Your task to perform on an android device: Add bose soundlink to the cart on ebay Image 0: 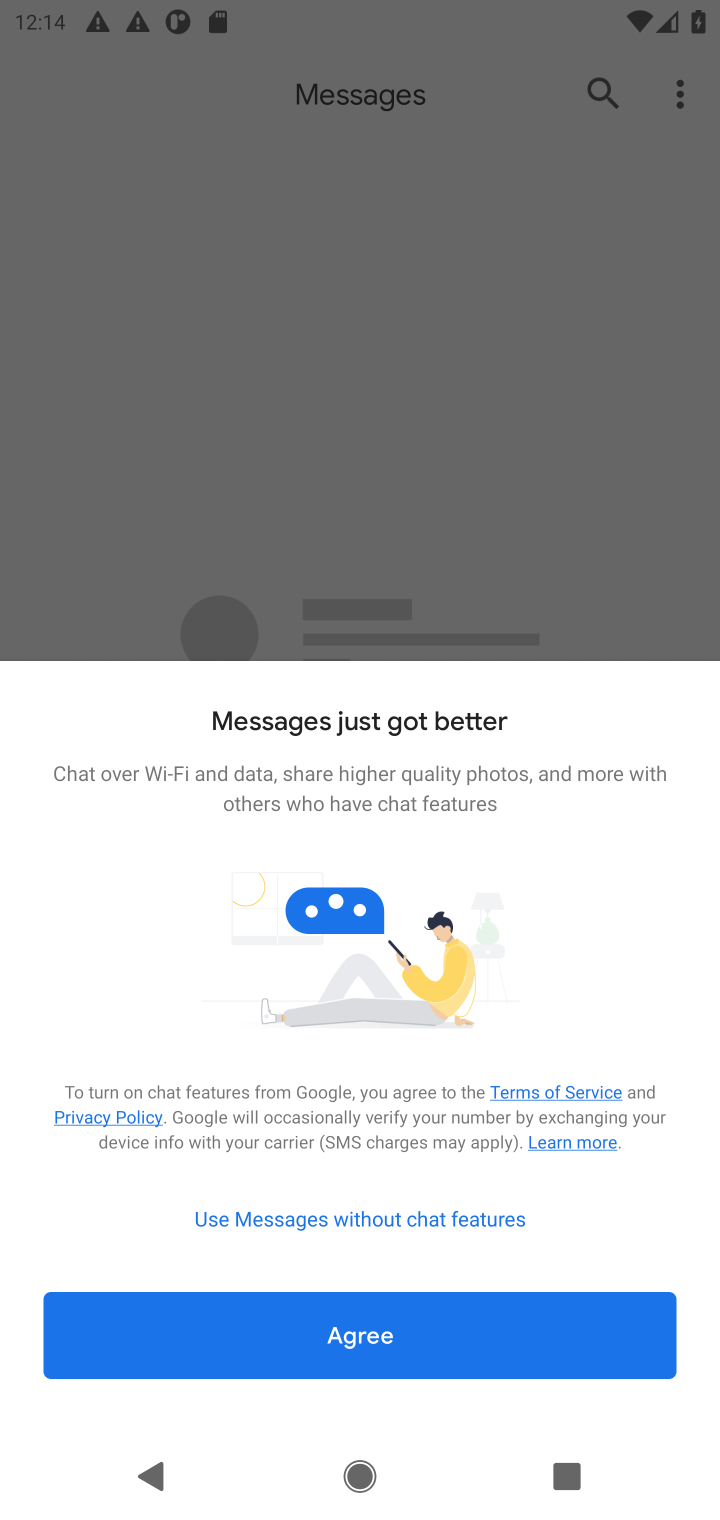
Step 0: press home button
Your task to perform on an android device: Add bose soundlink to the cart on ebay Image 1: 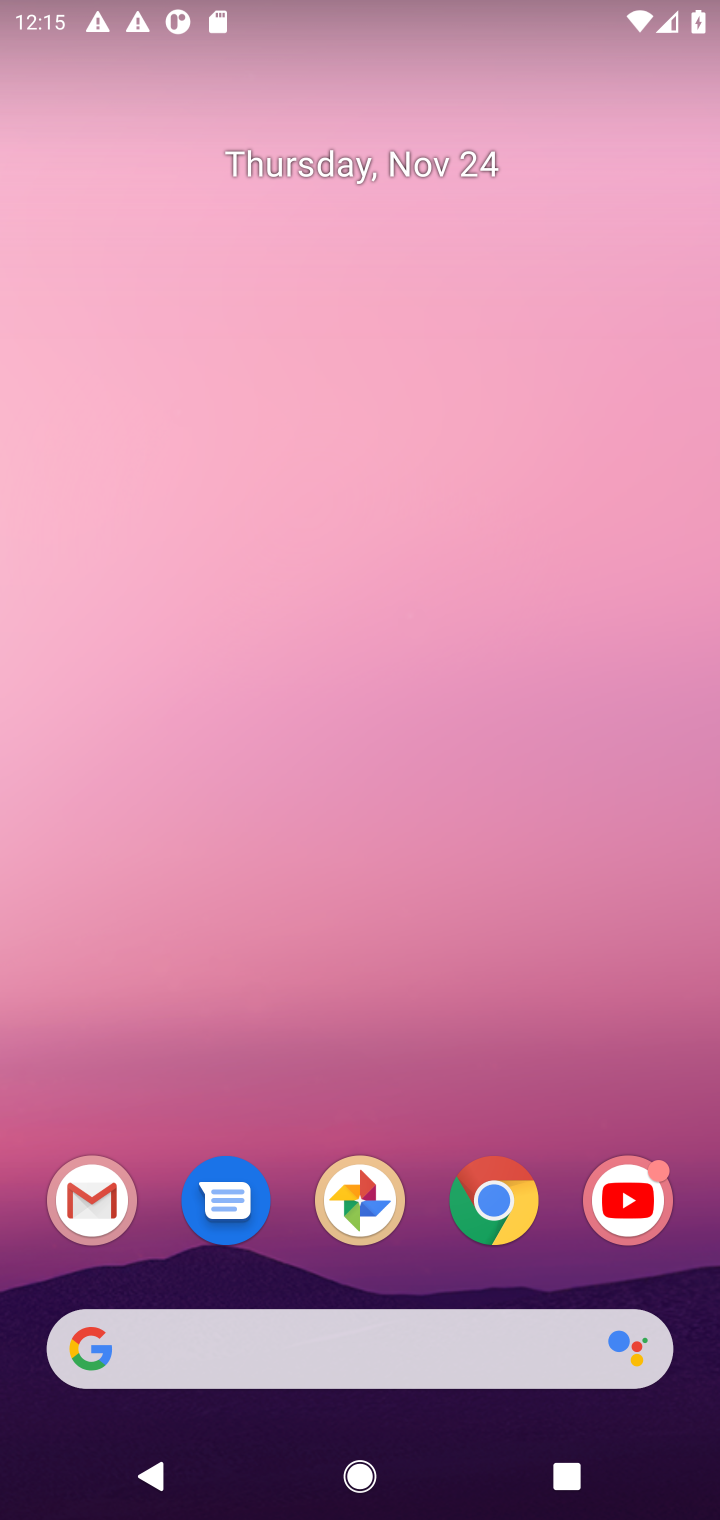
Step 1: click (362, 1359)
Your task to perform on an android device: Add bose soundlink to the cart on ebay Image 2: 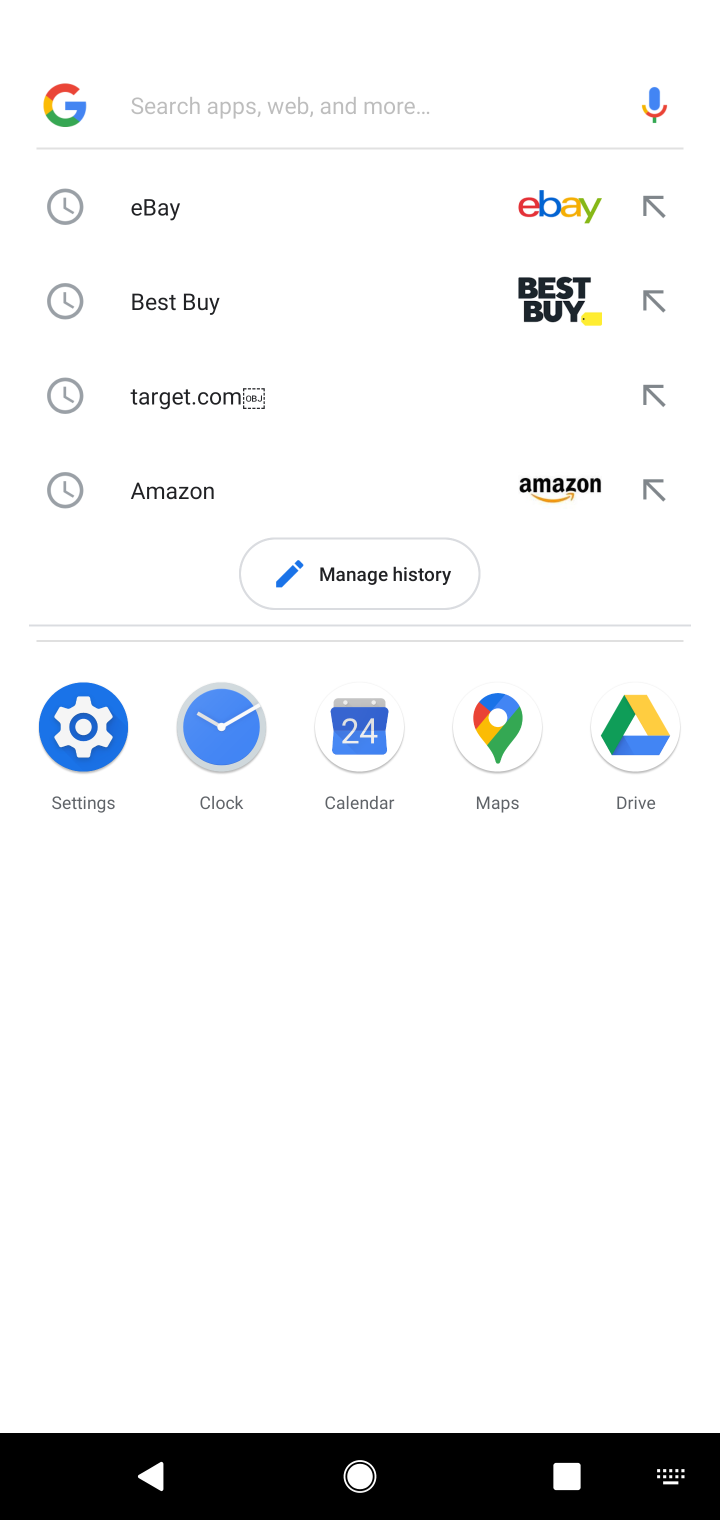
Step 2: click (175, 209)
Your task to perform on an android device: Add bose soundlink to the cart on ebay Image 3: 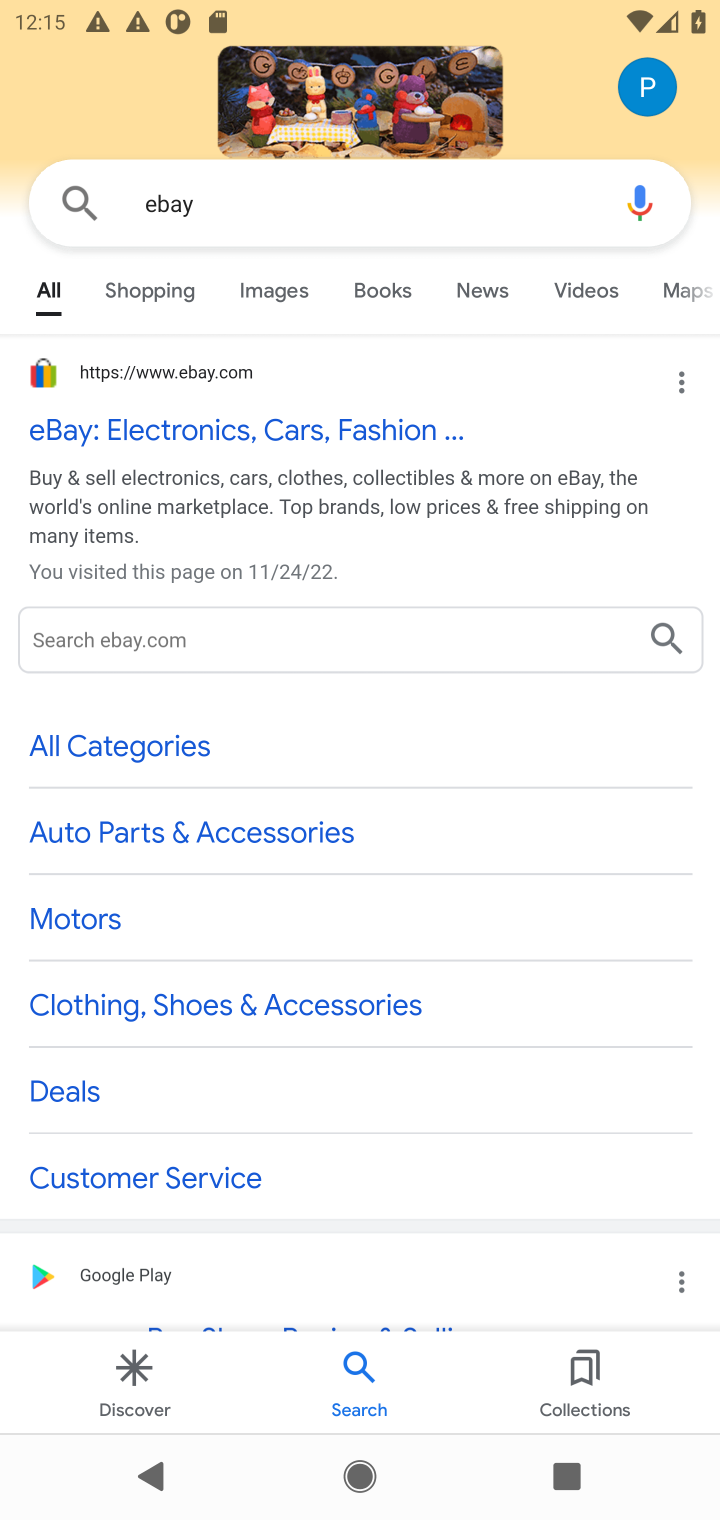
Step 3: click (74, 411)
Your task to perform on an android device: Add bose soundlink to the cart on ebay Image 4: 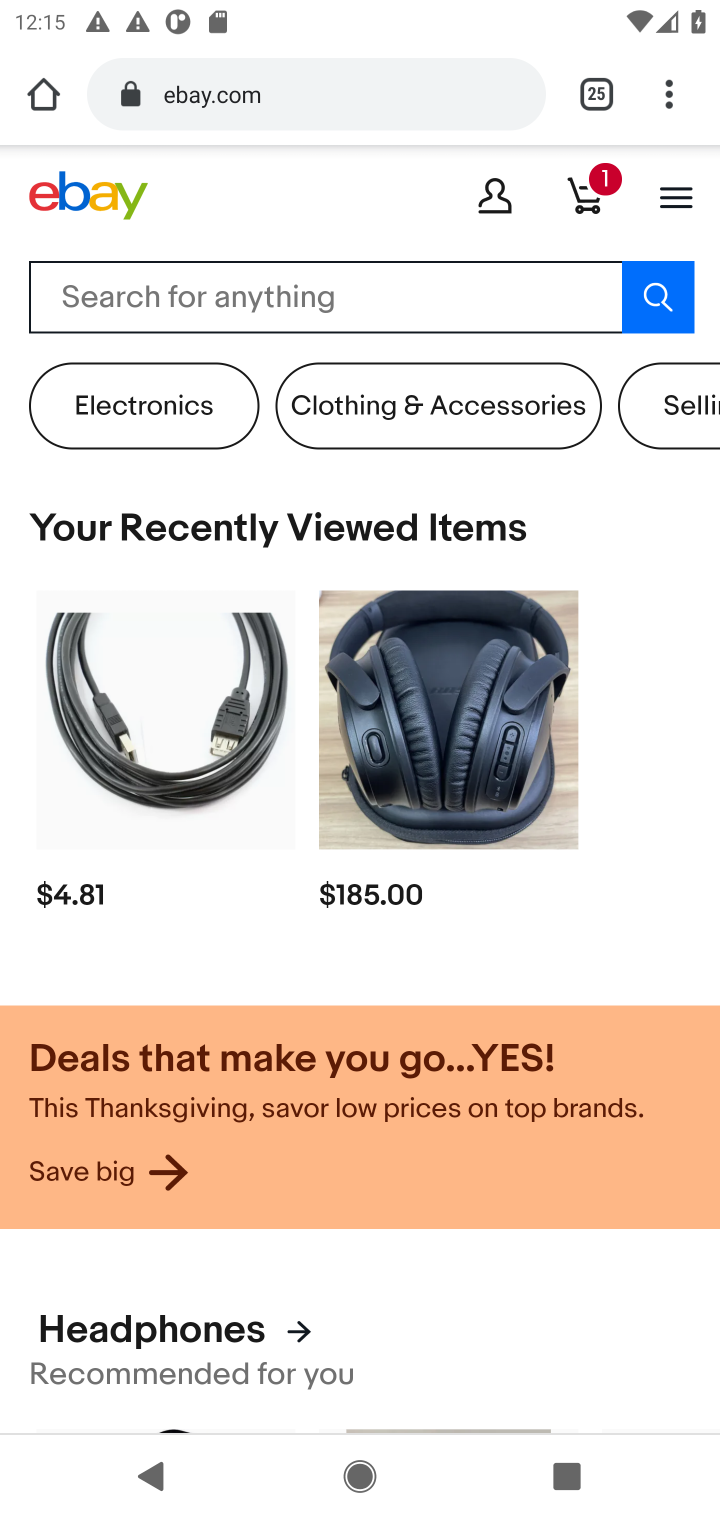
Step 4: click (87, 310)
Your task to perform on an android device: Add bose soundlink to the cart on ebay Image 5: 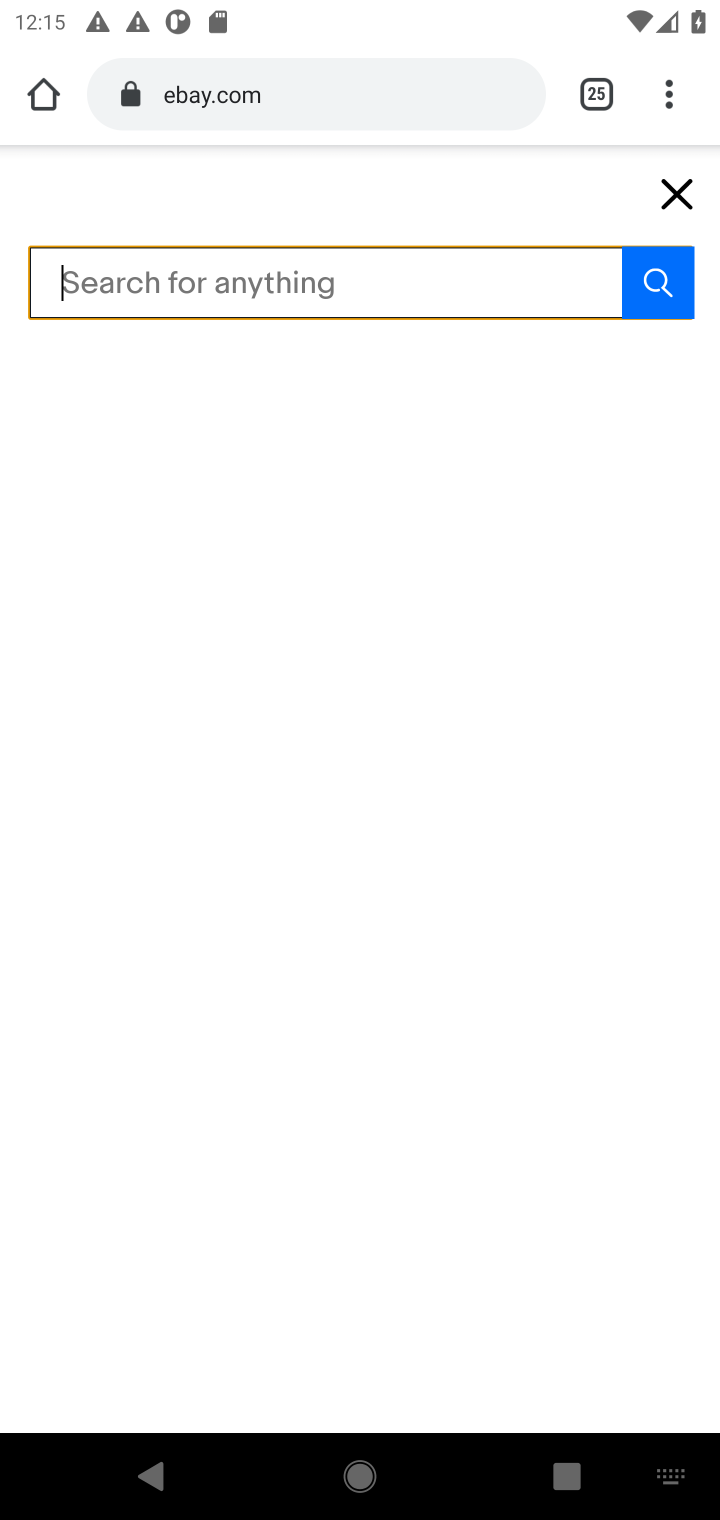
Step 5: type "bose soundlink"
Your task to perform on an android device: Add bose soundlink to the cart on ebay Image 6: 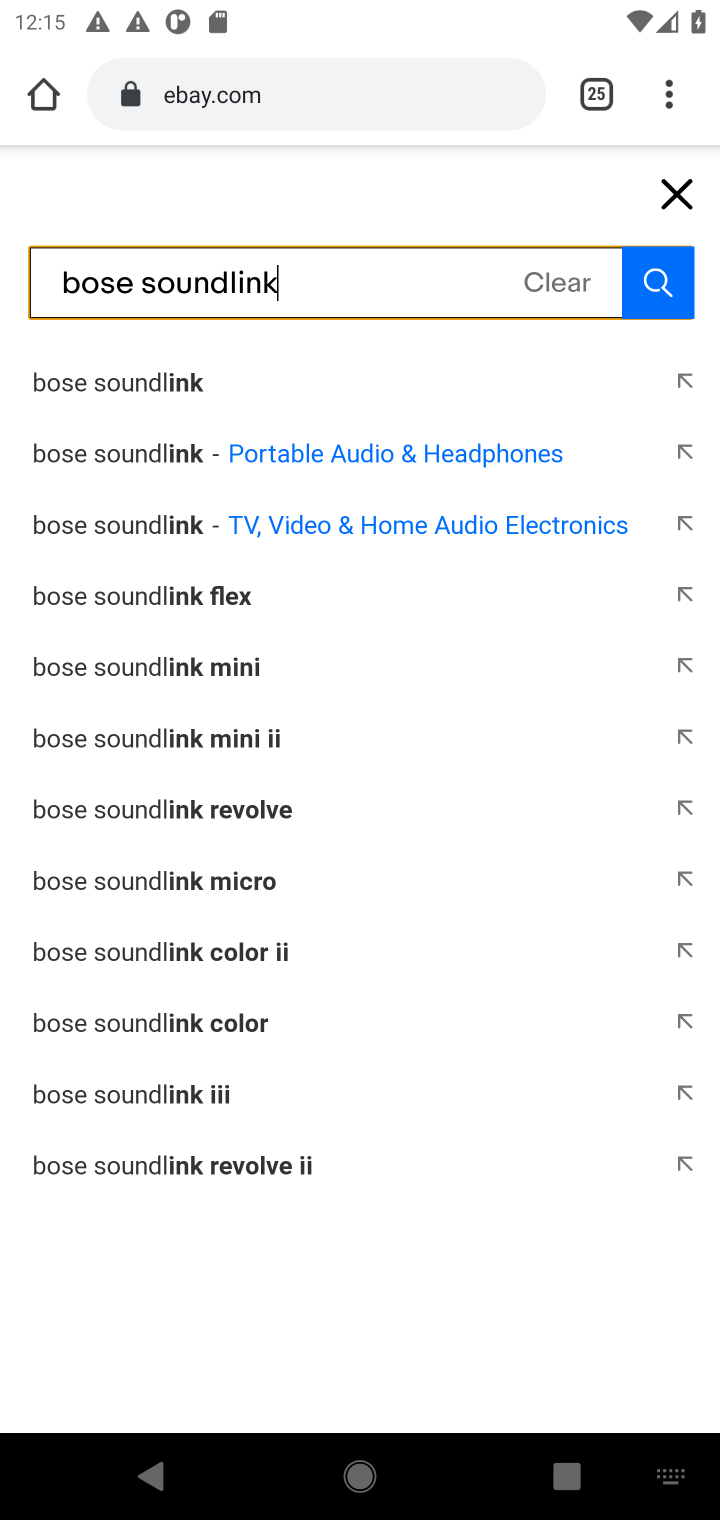
Step 6: click (152, 413)
Your task to perform on an android device: Add bose soundlink to the cart on ebay Image 7: 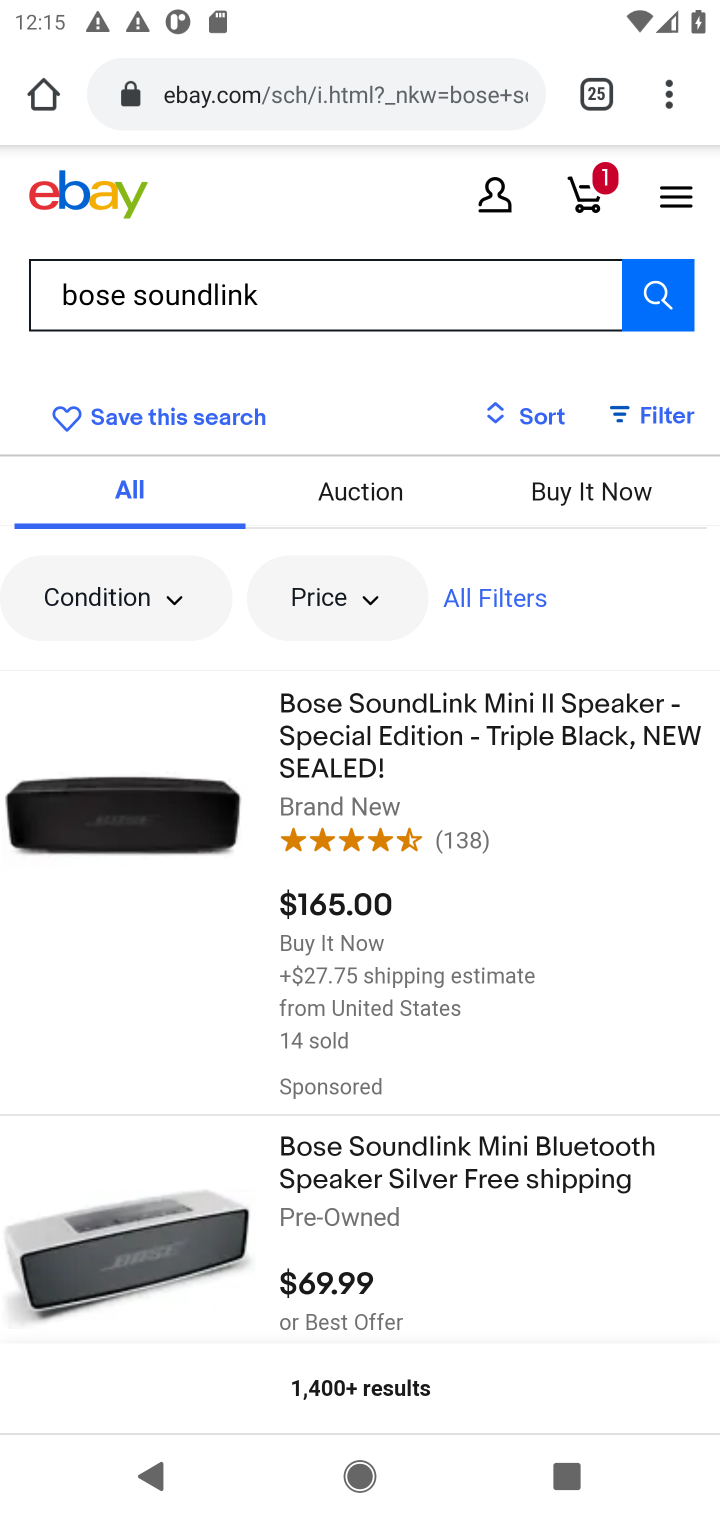
Step 7: click (410, 731)
Your task to perform on an android device: Add bose soundlink to the cart on ebay Image 8: 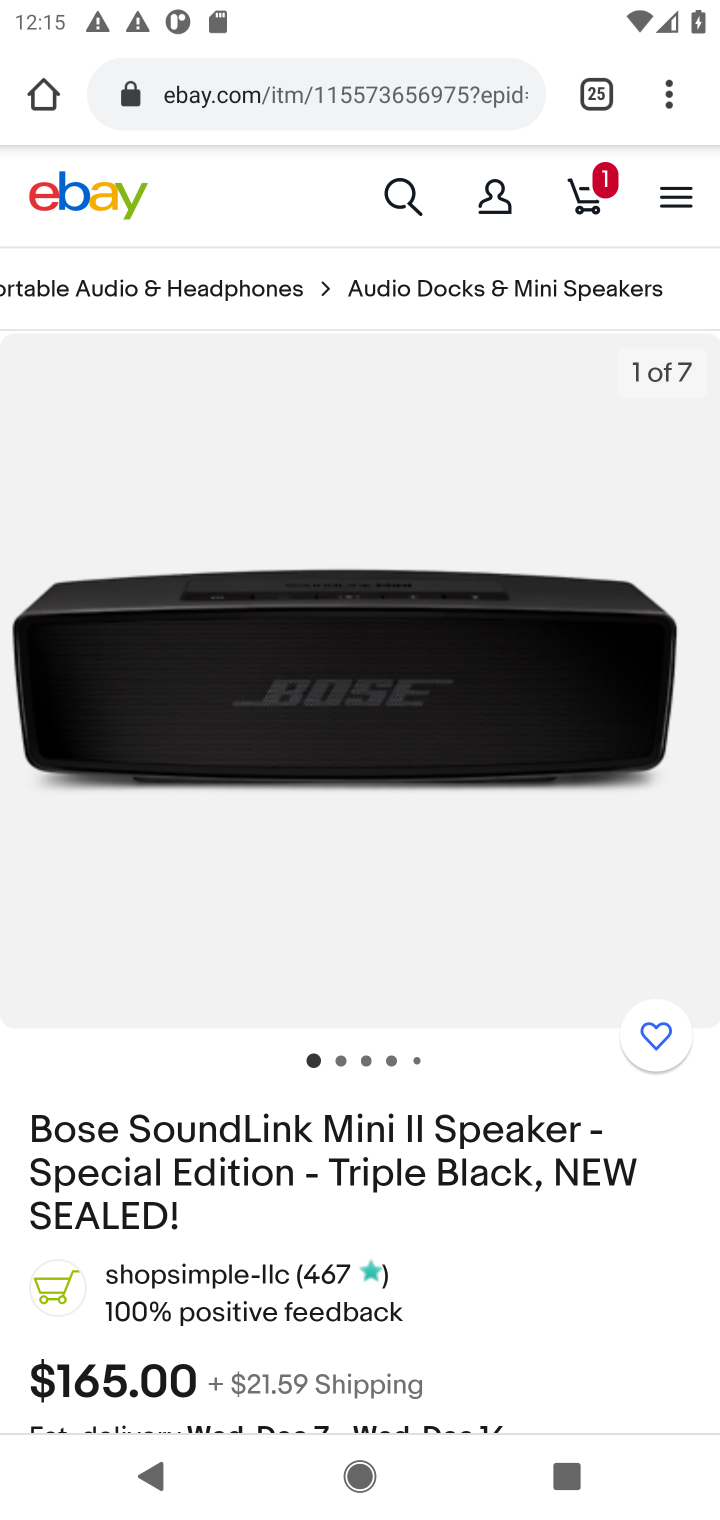
Step 8: drag from (564, 1384) to (559, 1012)
Your task to perform on an android device: Add bose soundlink to the cart on ebay Image 9: 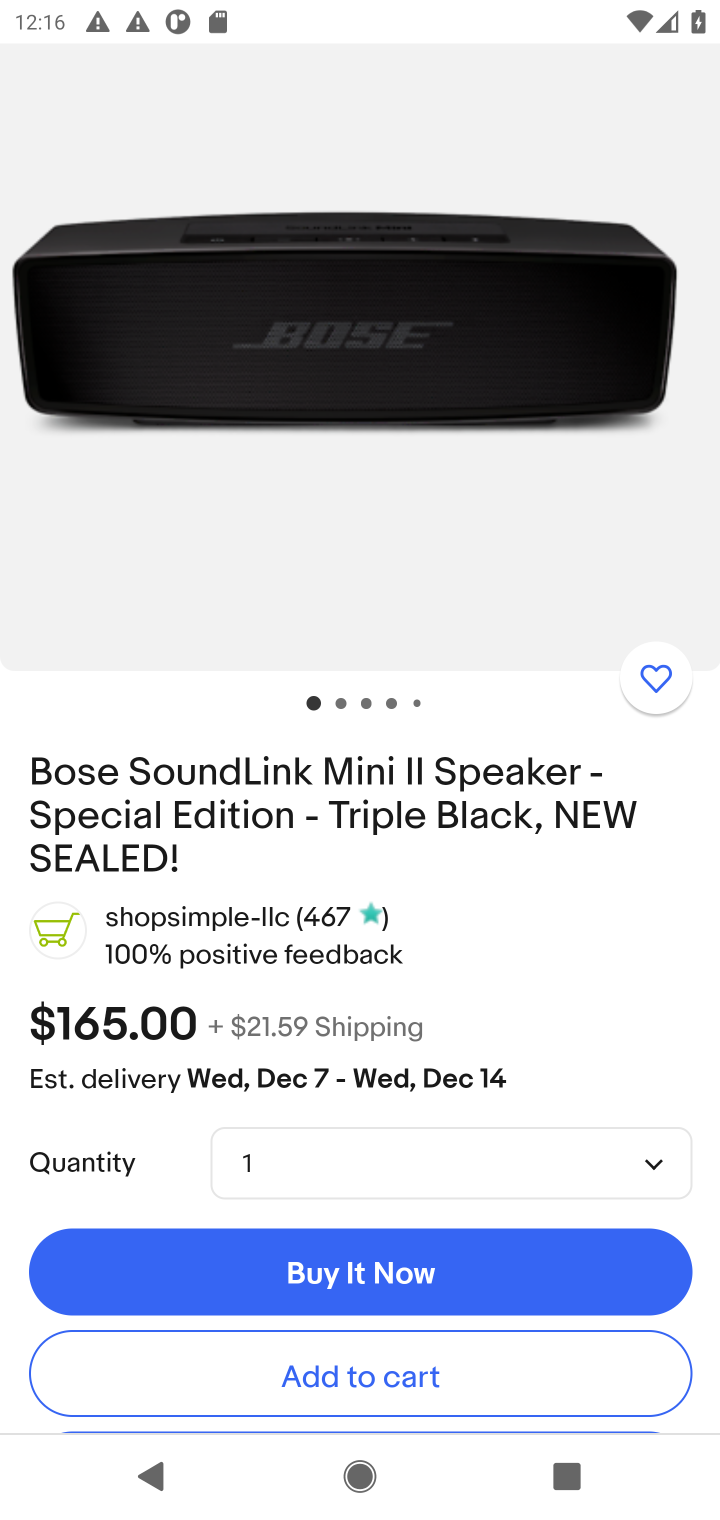
Step 9: click (483, 1378)
Your task to perform on an android device: Add bose soundlink to the cart on ebay Image 10: 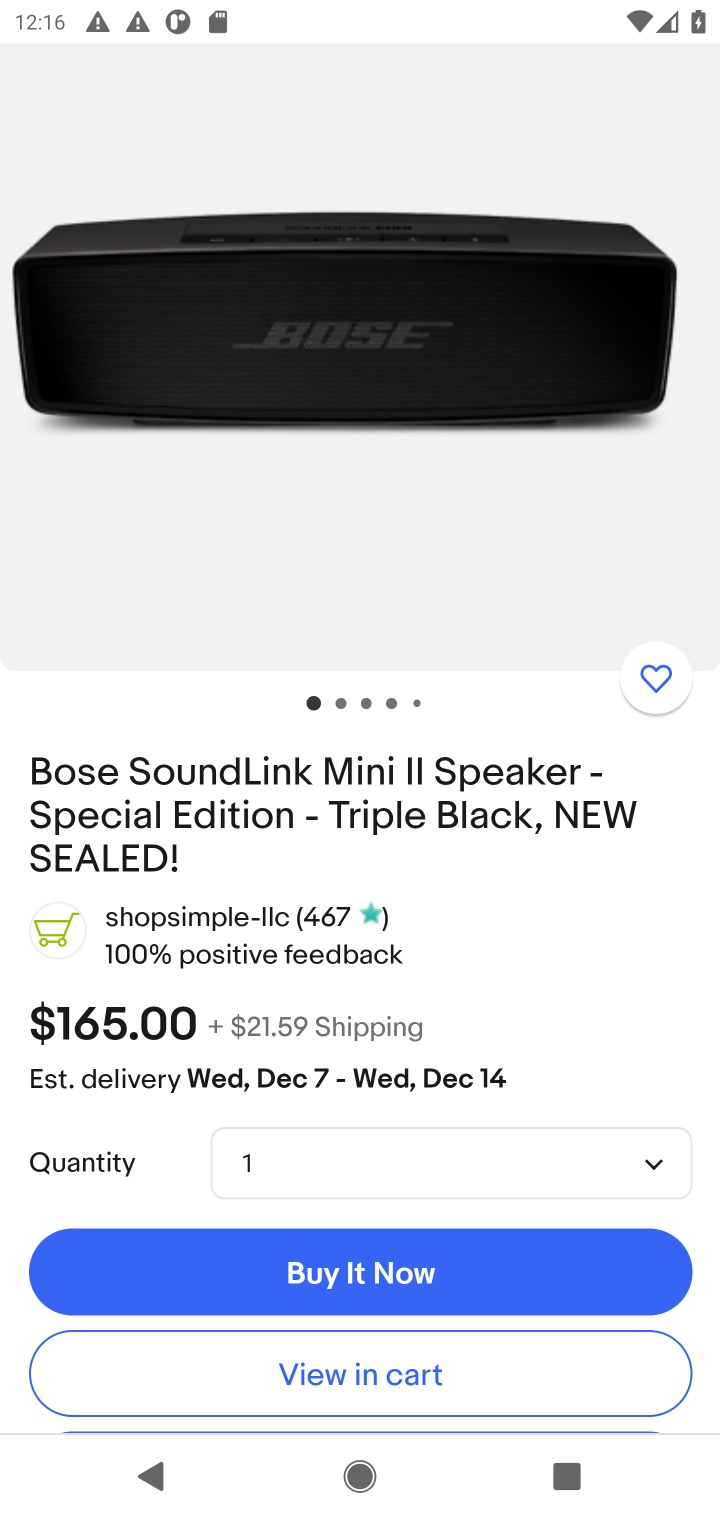
Step 10: task complete